Your task to perform on an android device: Go to Reddit.com Image 0: 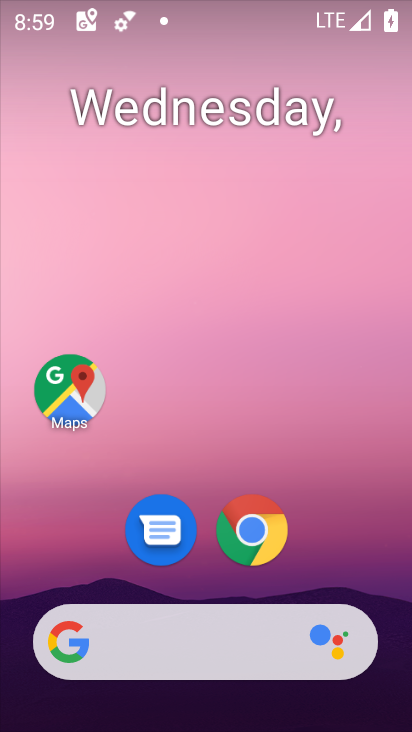
Step 0: drag from (406, 627) to (298, 146)
Your task to perform on an android device: Go to Reddit.com Image 1: 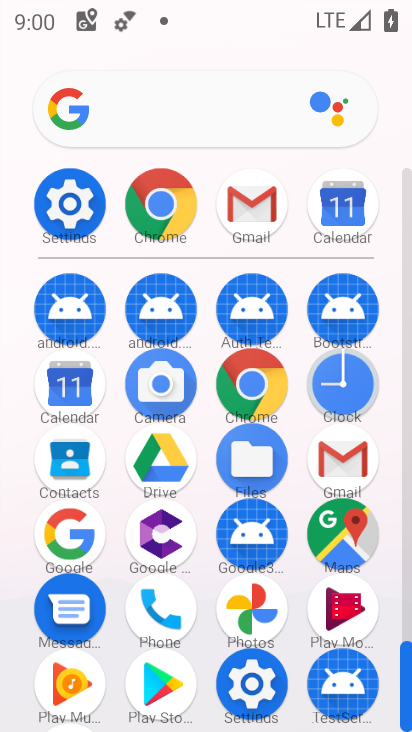
Step 1: click (272, 413)
Your task to perform on an android device: Go to Reddit.com Image 2: 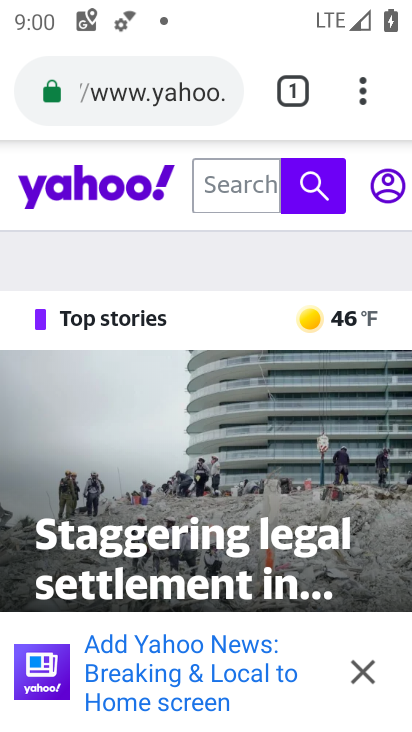
Step 2: press back button
Your task to perform on an android device: Go to Reddit.com Image 3: 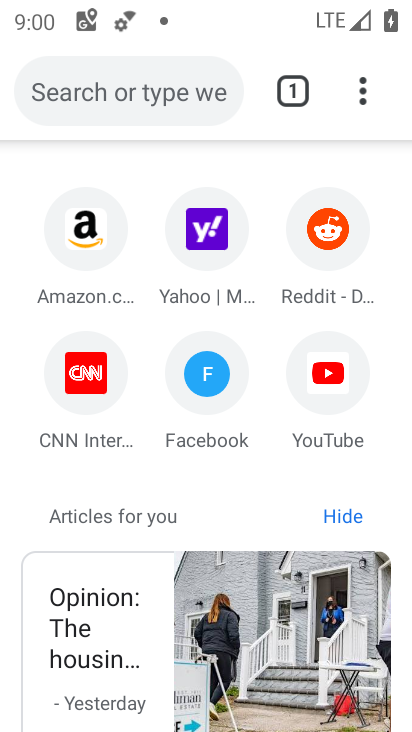
Step 3: click (307, 249)
Your task to perform on an android device: Go to Reddit.com Image 4: 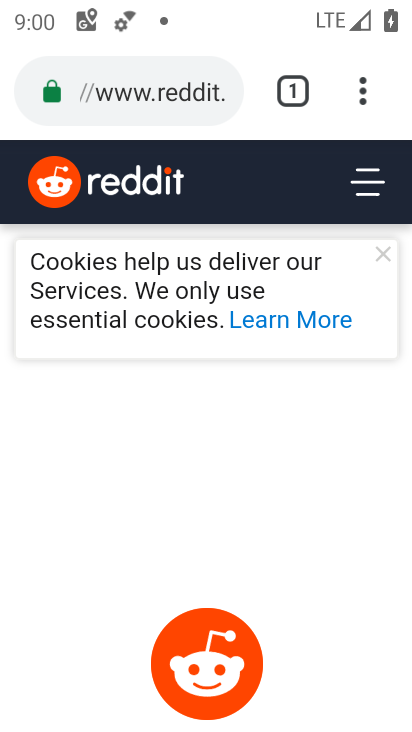
Step 4: task complete